Your task to perform on an android device: toggle pop-ups in chrome Image 0: 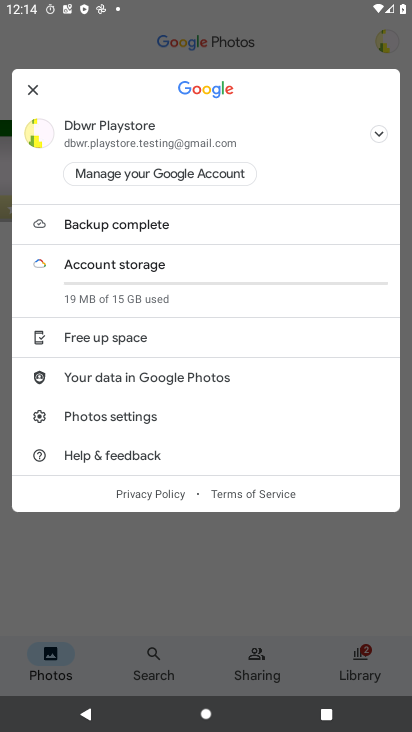
Step 0: press home button
Your task to perform on an android device: toggle pop-ups in chrome Image 1: 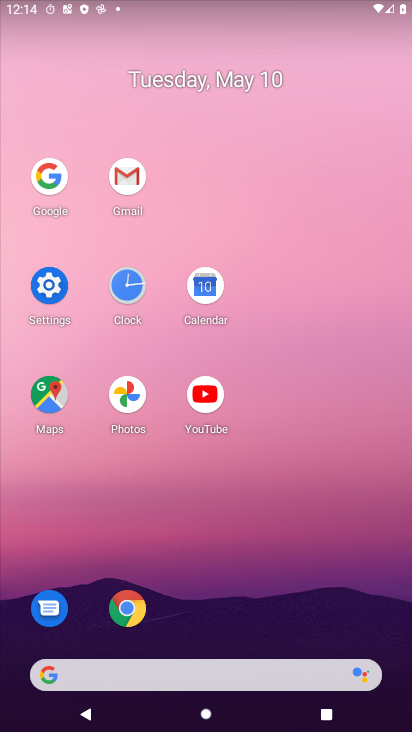
Step 1: click (129, 605)
Your task to perform on an android device: toggle pop-ups in chrome Image 2: 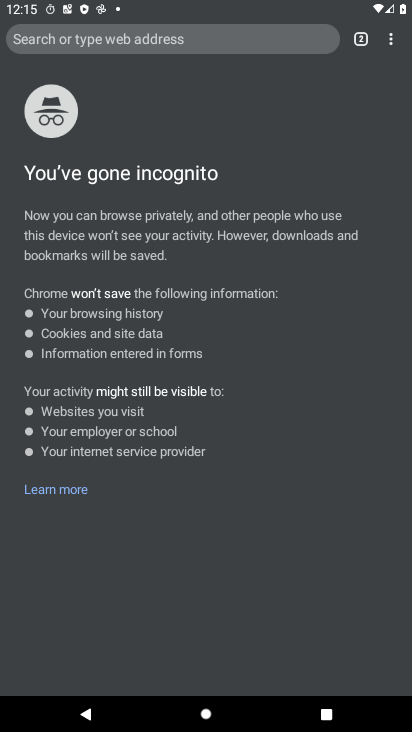
Step 2: click (388, 36)
Your task to perform on an android device: toggle pop-ups in chrome Image 3: 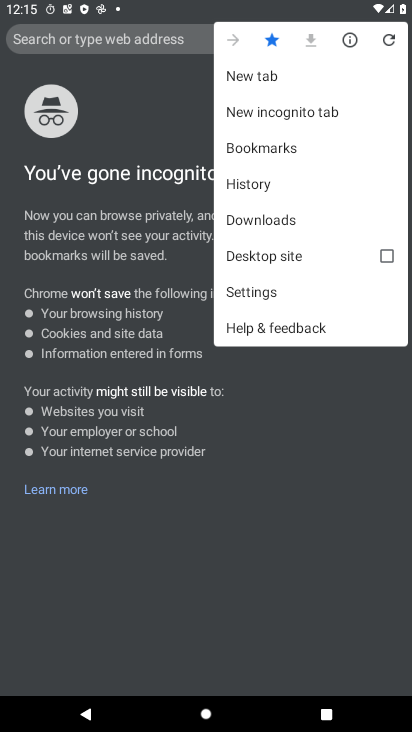
Step 3: click (276, 289)
Your task to perform on an android device: toggle pop-ups in chrome Image 4: 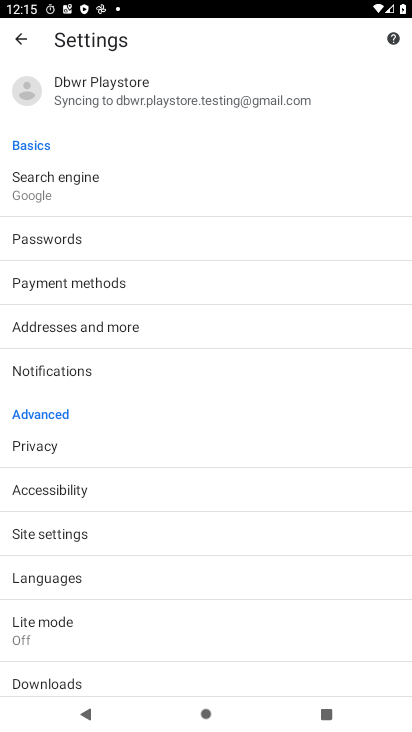
Step 4: drag from (253, 544) to (221, 138)
Your task to perform on an android device: toggle pop-ups in chrome Image 5: 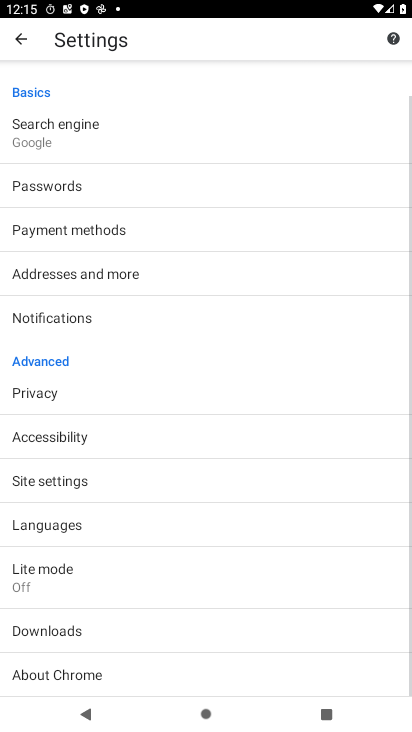
Step 5: drag from (153, 584) to (105, 188)
Your task to perform on an android device: toggle pop-ups in chrome Image 6: 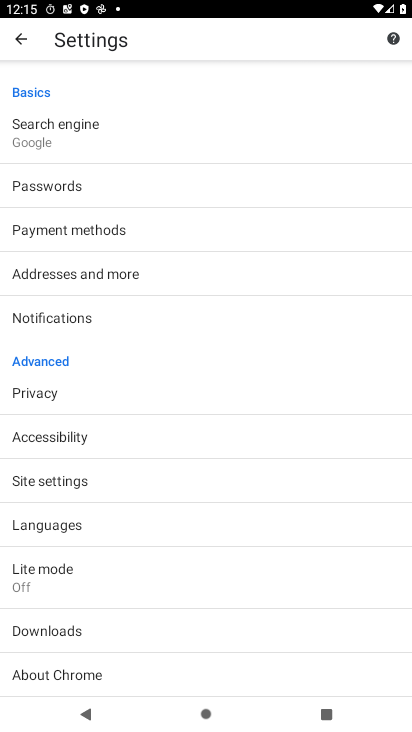
Step 6: click (160, 489)
Your task to perform on an android device: toggle pop-ups in chrome Image 7: 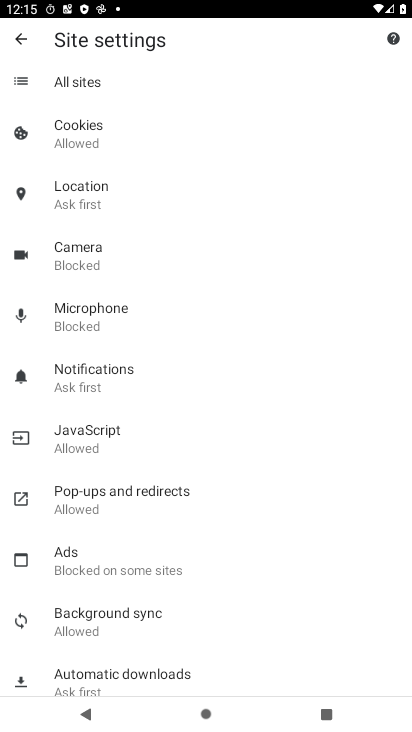
Step 7: drag from (178, 608) to (180, 254)
Your task to perform on an android device: toggle pop-ups in chrome Image 8: 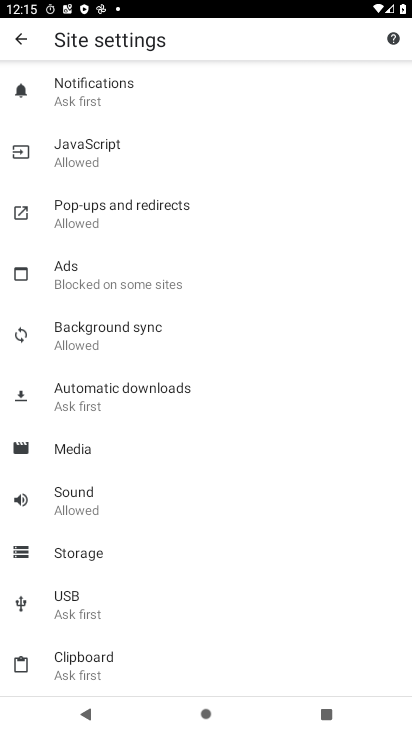
Step 8: click (118, 221)
Your task to perform on an android device: toggle pop-ups in chrome Image 9: 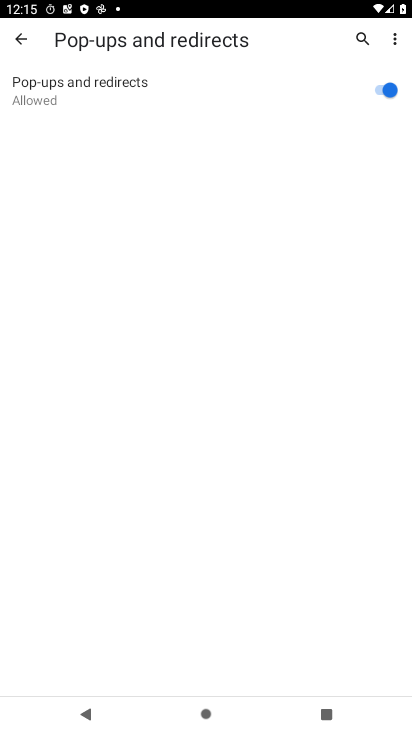
Step 9: click (406, 103)
Your task to perform on an android device: toggle pop-ups in chrome Image 10: 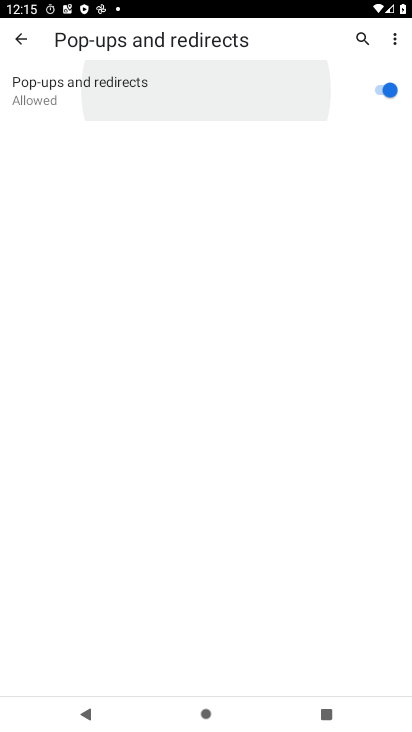
Step 10: click (393, 91)
Your task to perform on an android device: toggle pop-ups in chrome Image 11: 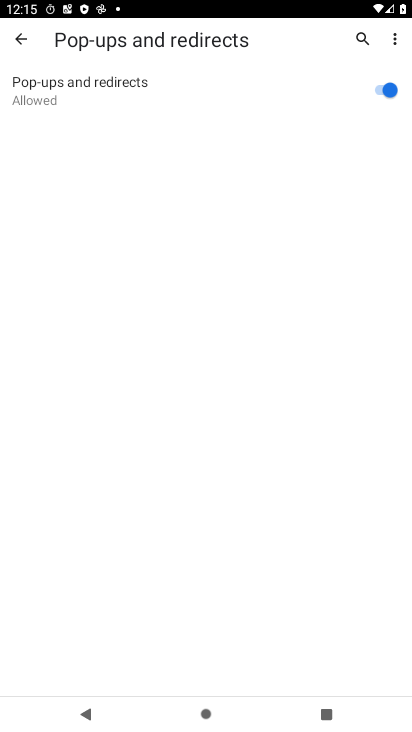
Step 11: task complete